Your task to perform on an android device: change alarm snooze length Image 0: 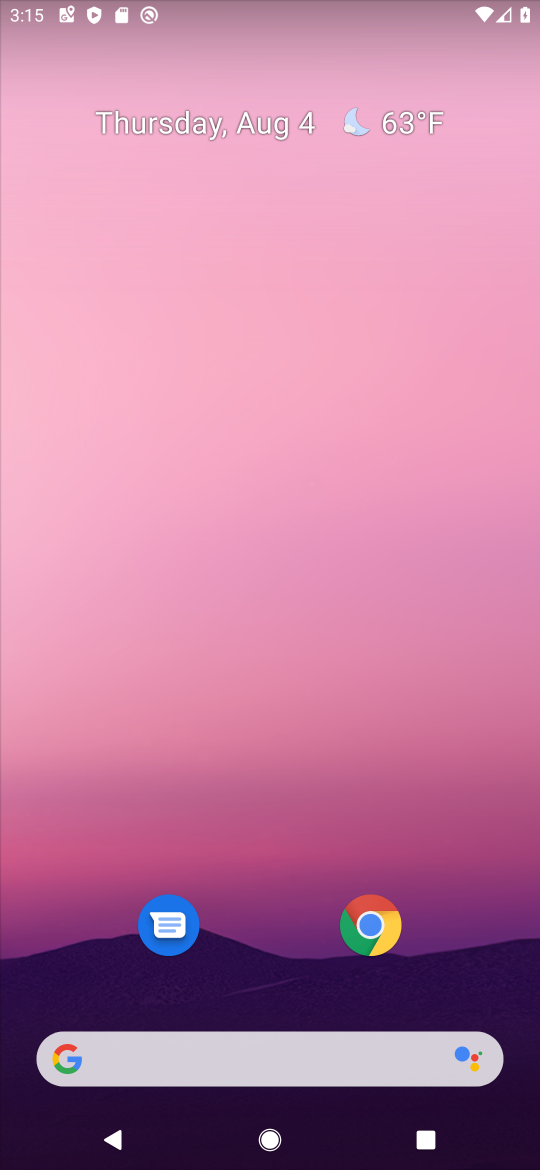
Step 0: drag from (240, 915) to (297, 134)
Your task to perform on an android device: change alarm snooze length Image 1: 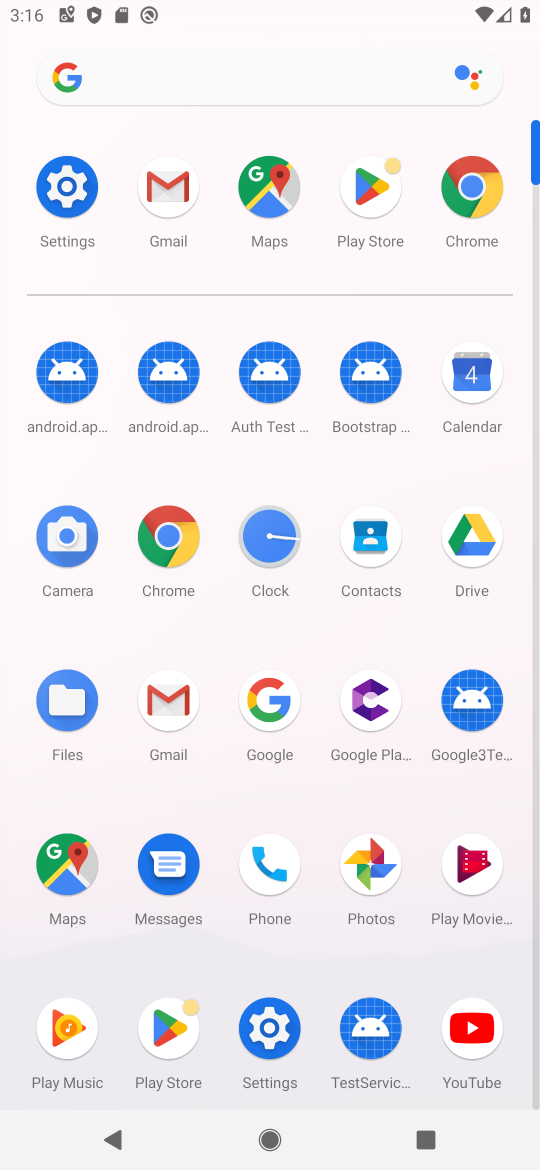
Step 1: click (263, 538)
Your task to perform on an android device: change alarm snooze length Image 2: 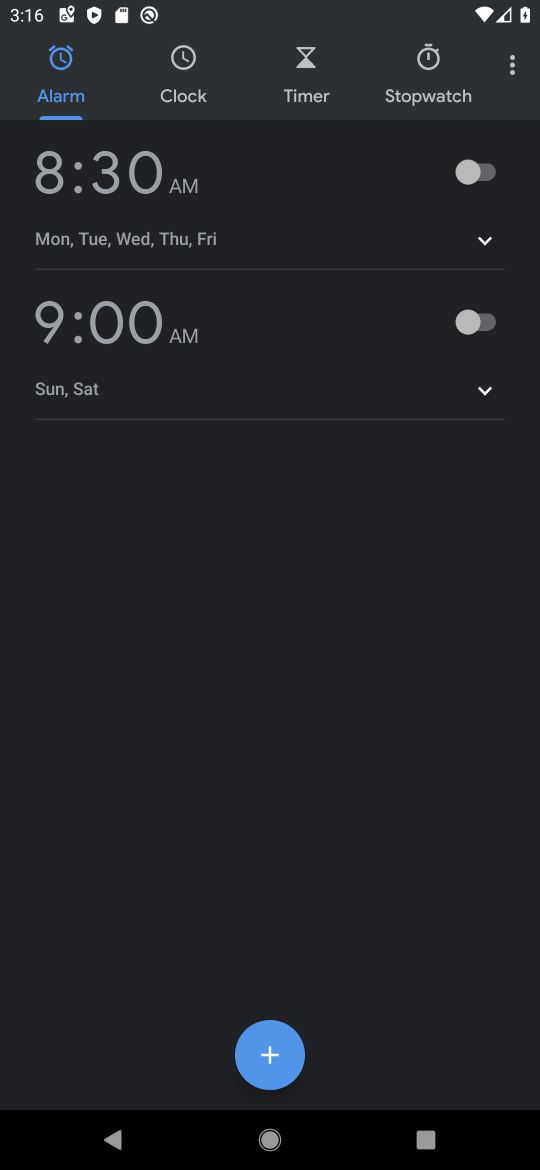
Step 2: click (519, 65)
Your task to perform on an android device: change alarm snooze length Image 3: 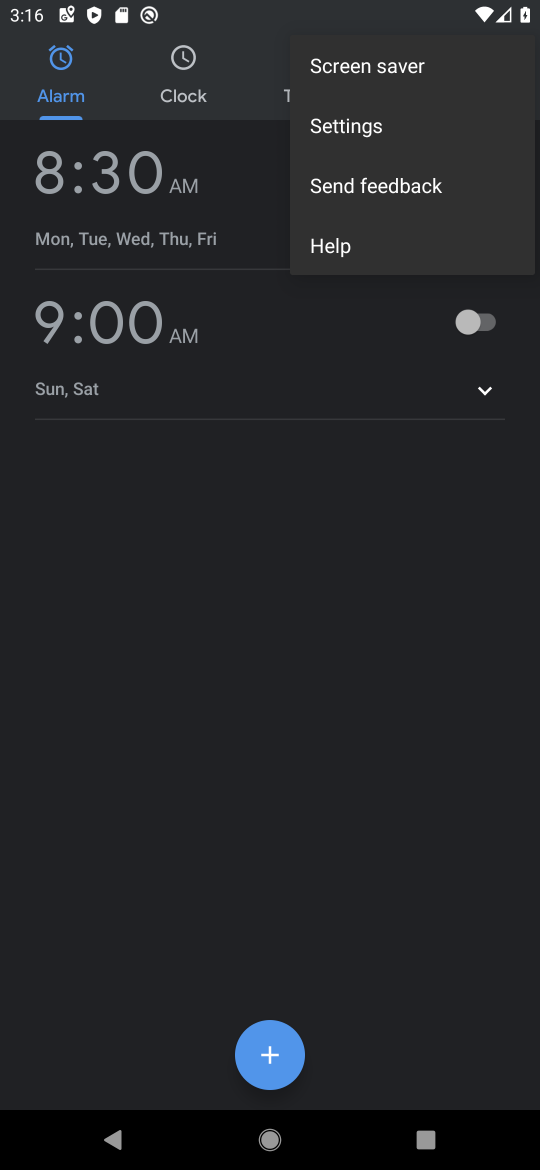
Step 3: click (407, 129)
Your task to perform on an android device: change alarm snooze length Image 4: 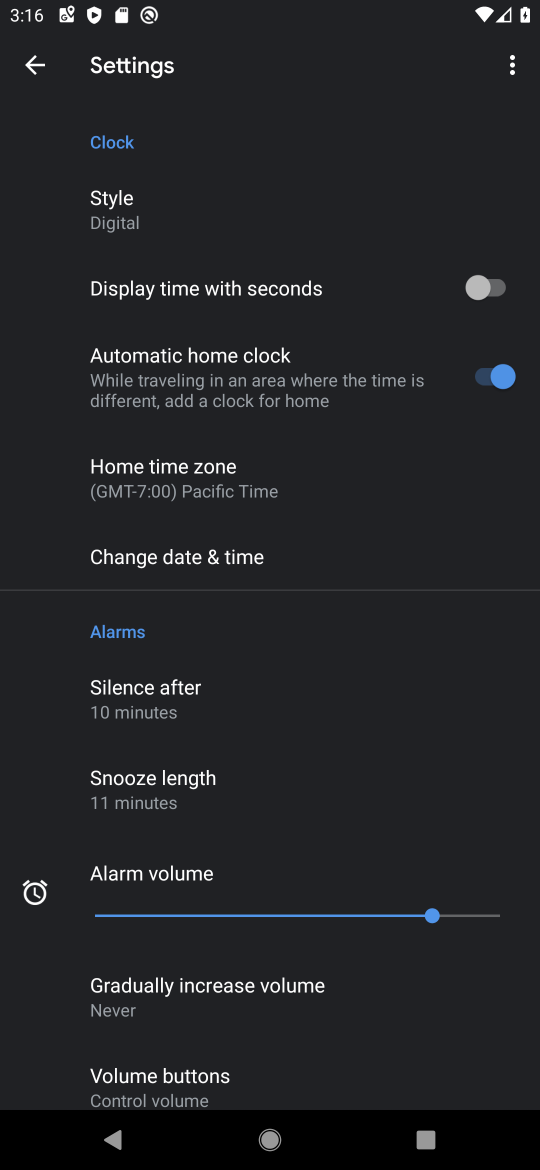
Step 4: click (167, 775)
Your task to perform on an android device: change alarm snooze length Image 5: 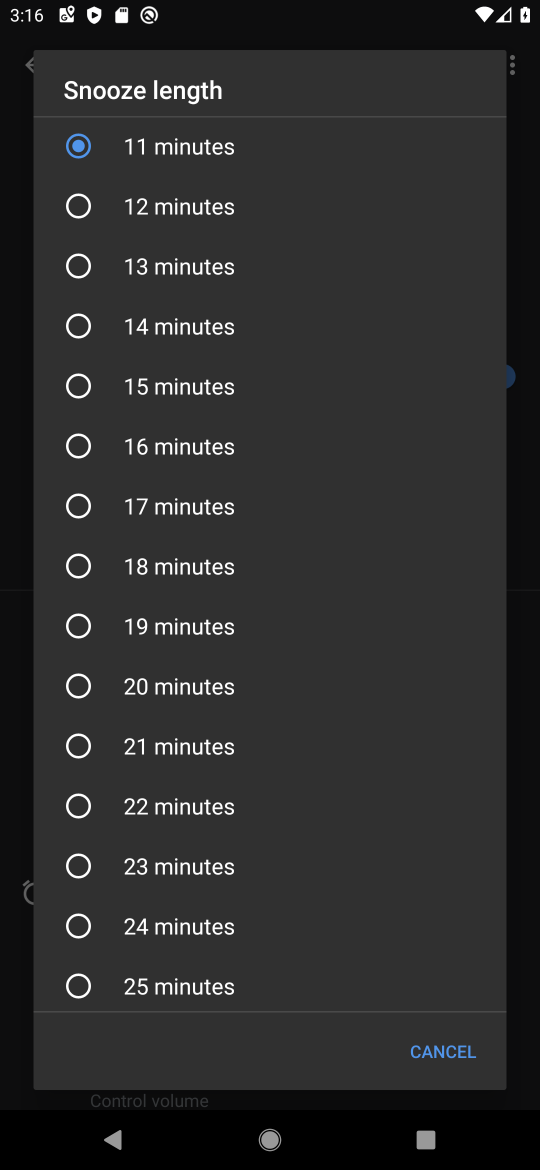
Step 5: click (147, 205)
Your task to perform on an android device: change alarm snooze length Image 6: 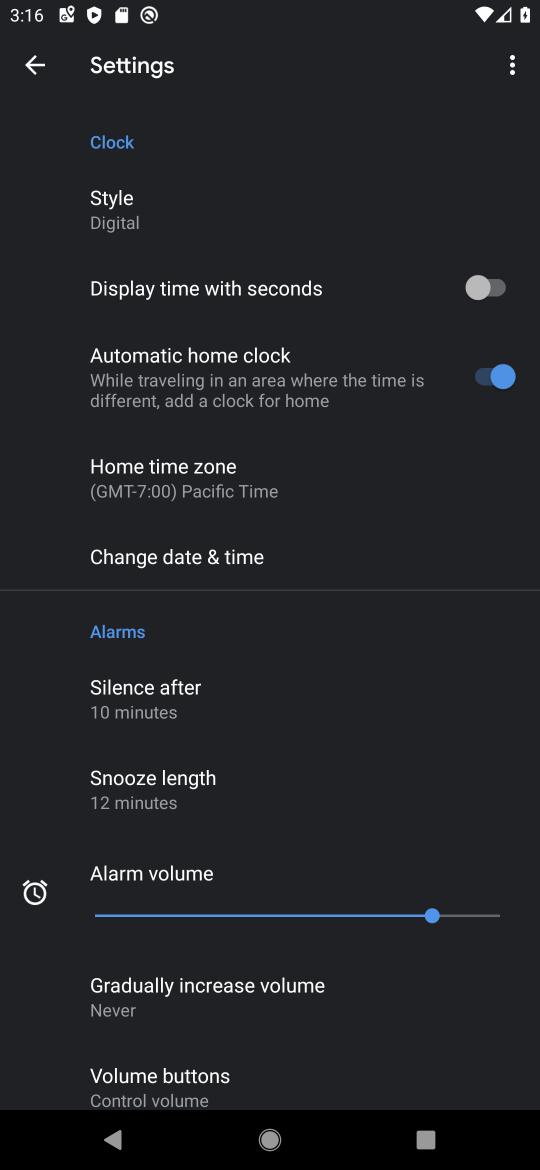
Step 6: task complete